Your task to perform on an android device: open app "Cash App" Image 0: 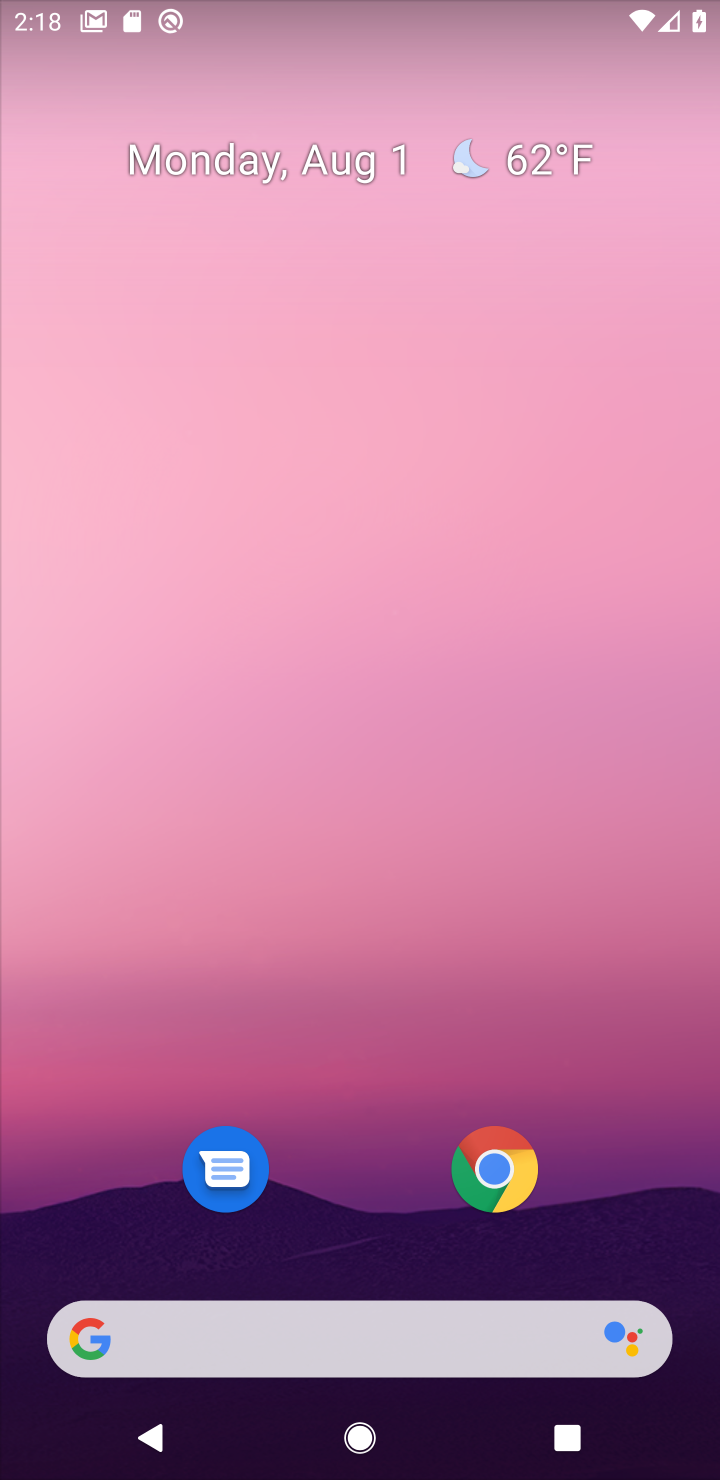
Step 0: click (371, 46)
Your task to perform on an android device: open app "Cash App" Image 1: 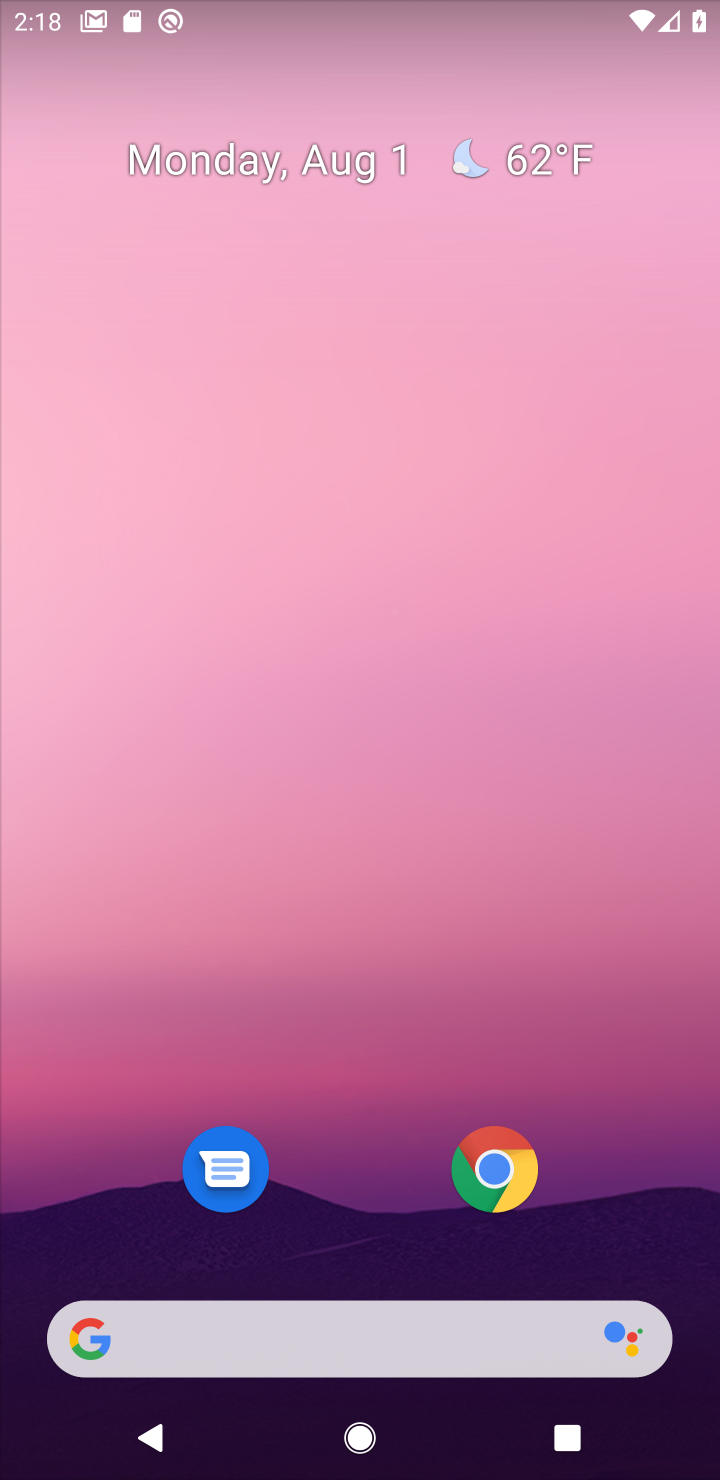
Step 1: drag from (346, 1098) to (424, 154)
Your task to perform on an android device: open app "Cash App" Image 2: 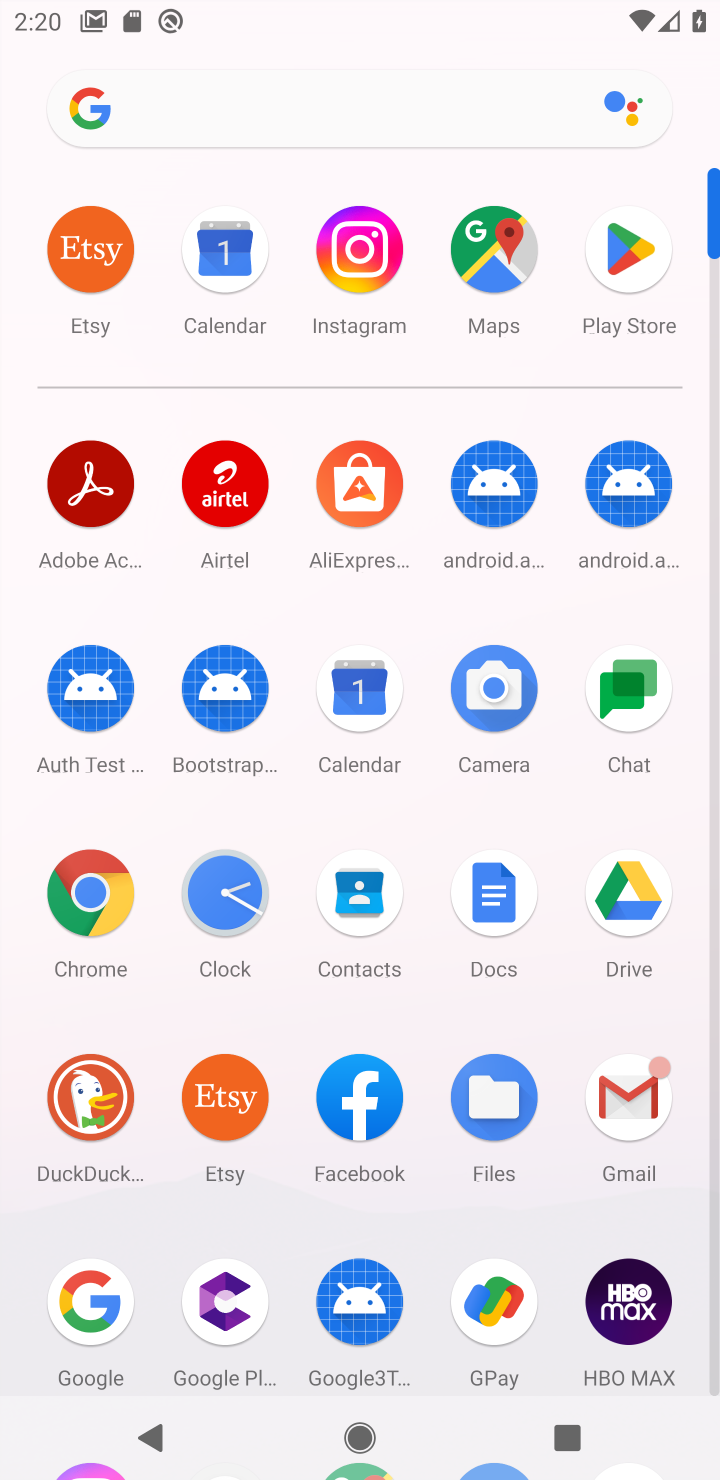
Step 2: click (629, 276)
Your task to perform on an android device: open app "Cash App" Image 3: 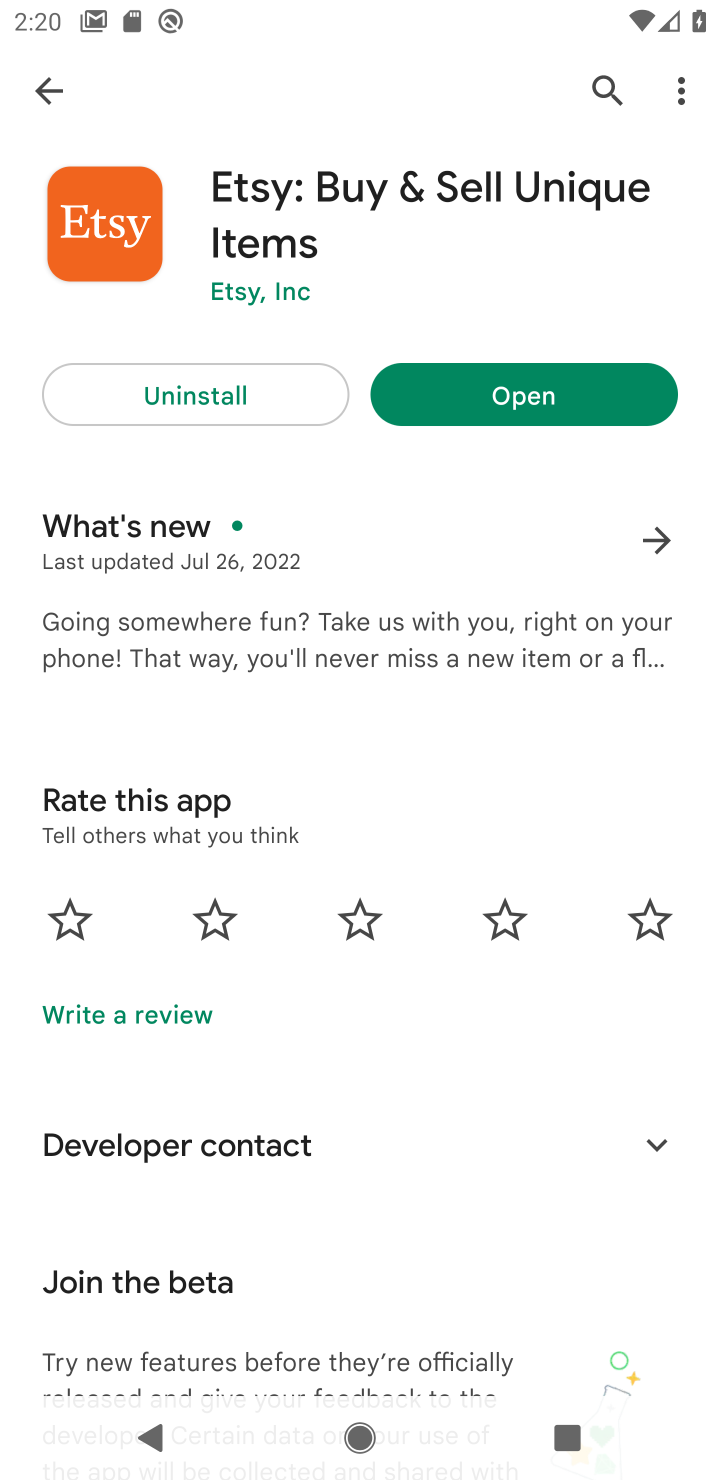
Step 3: click (49, 88)
Your task to perform on an android device: open app "Cash App" Image 4: 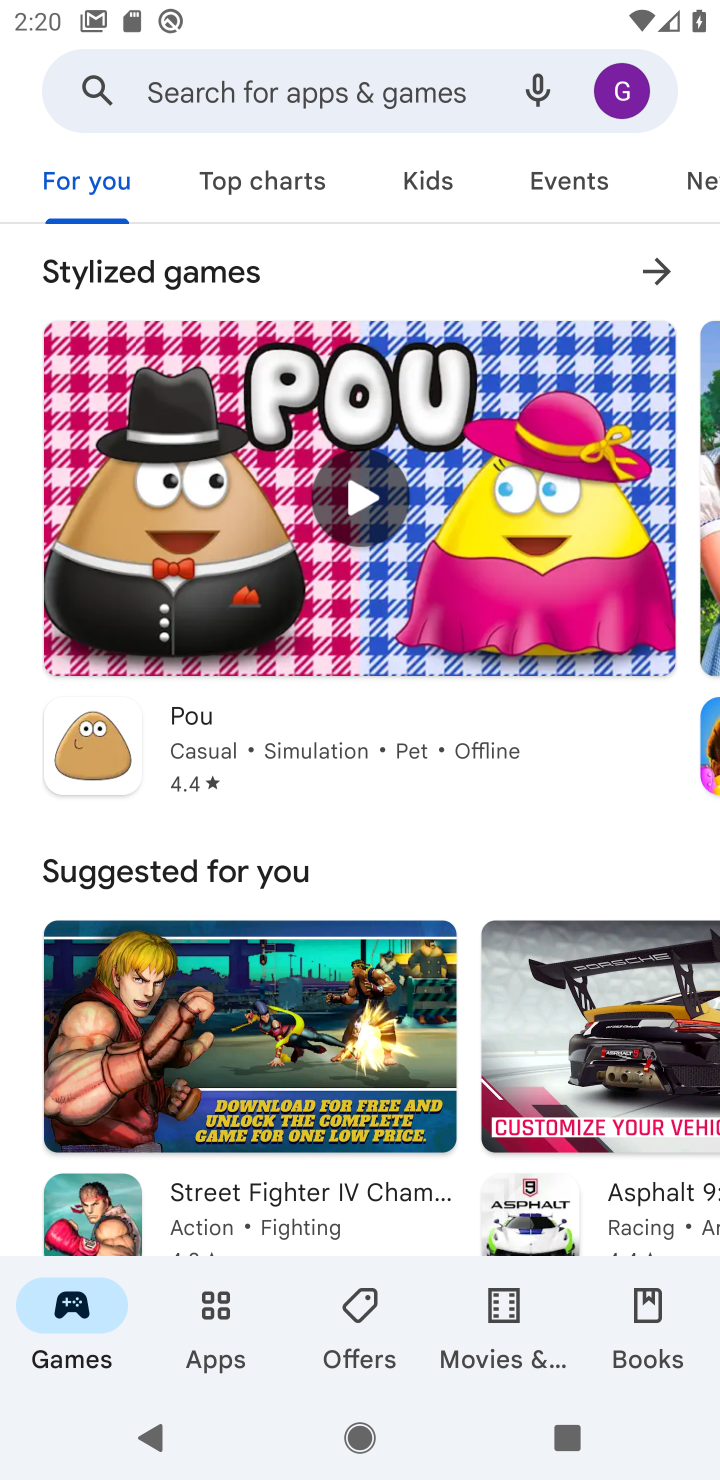
Step 4: click (320, 93)
Your task to perform on an android device: open app "Cash App" Image 5: 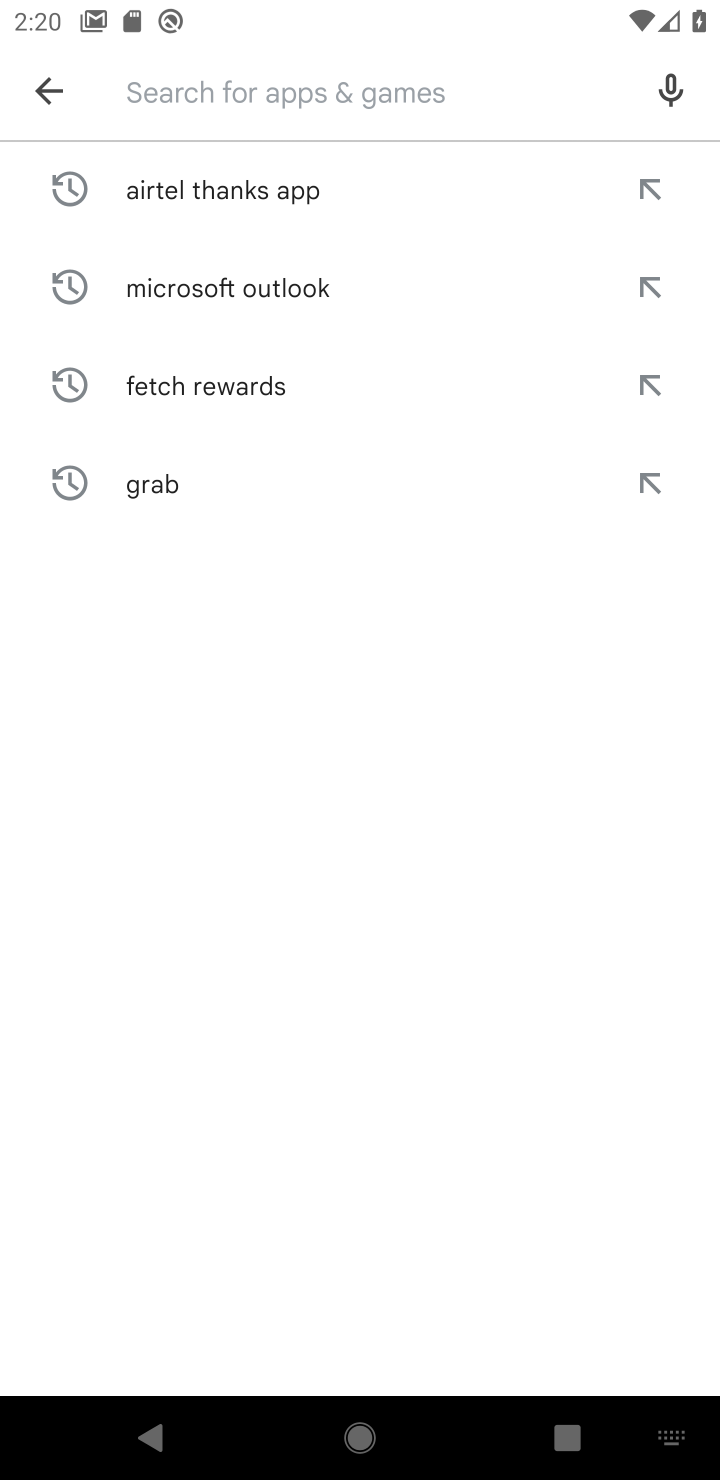
Step 5: type "Cash App"
Your task to perform on an android device: open app "Cash App" Image 6: 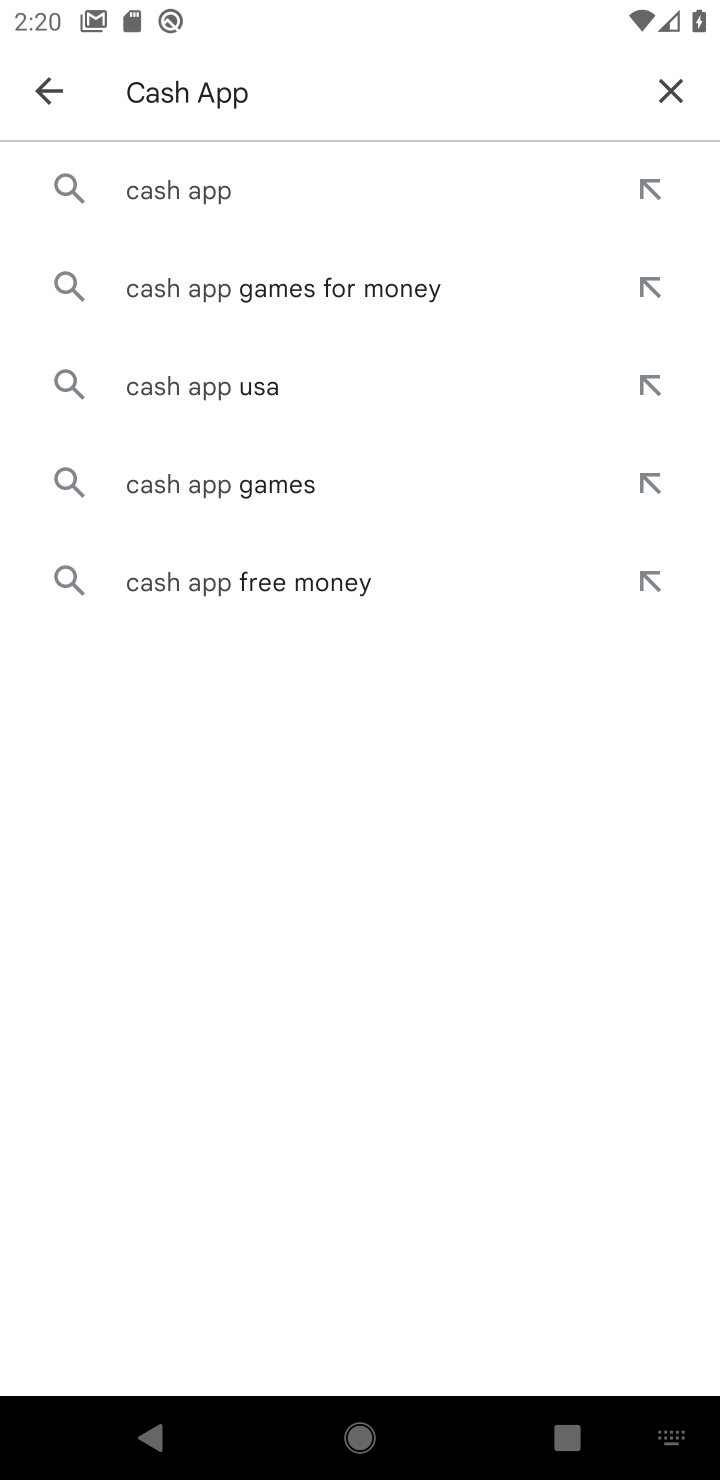
Step 6: click (186, 188)
Your task to perform on an android device: open app "Cash App" Image 7: 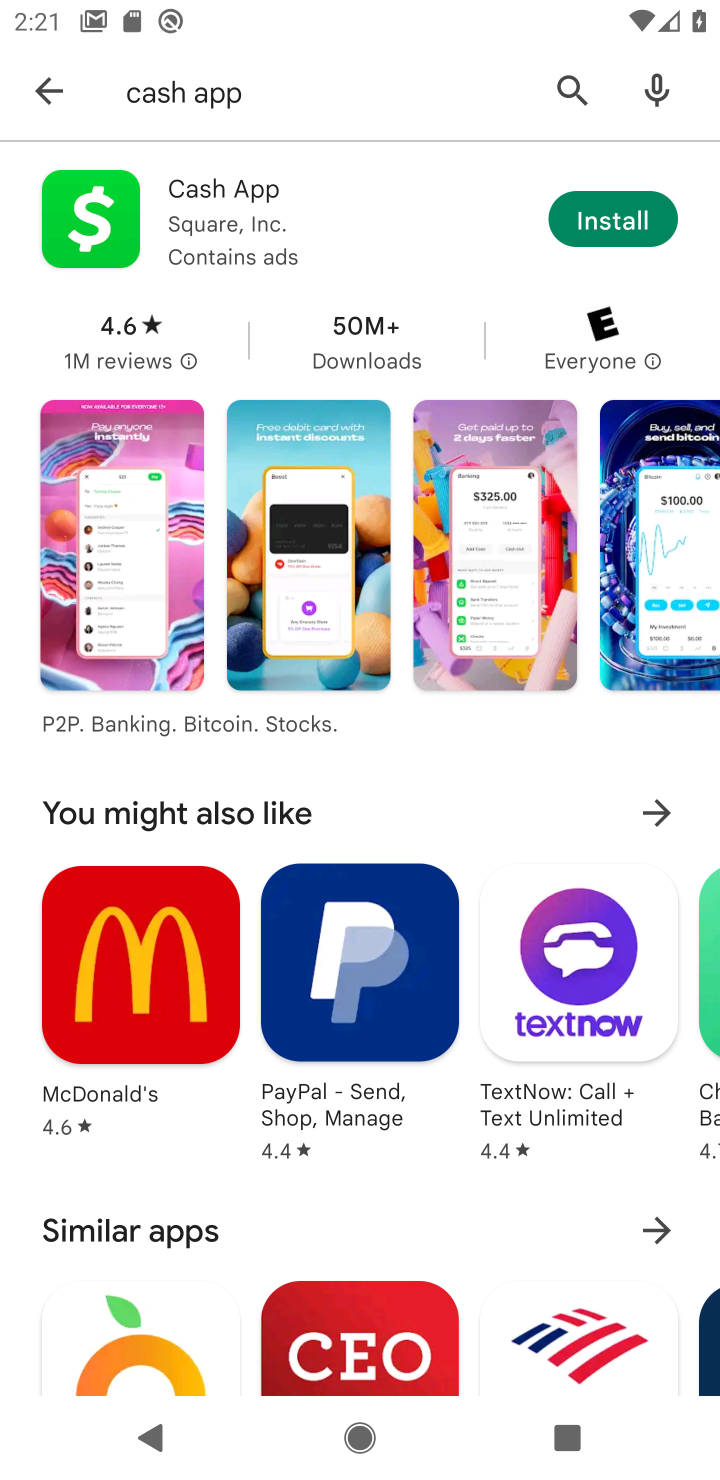
Step 7: click (638, 221)
Your task to perform on an android device: open app "Cash App" Image 8: 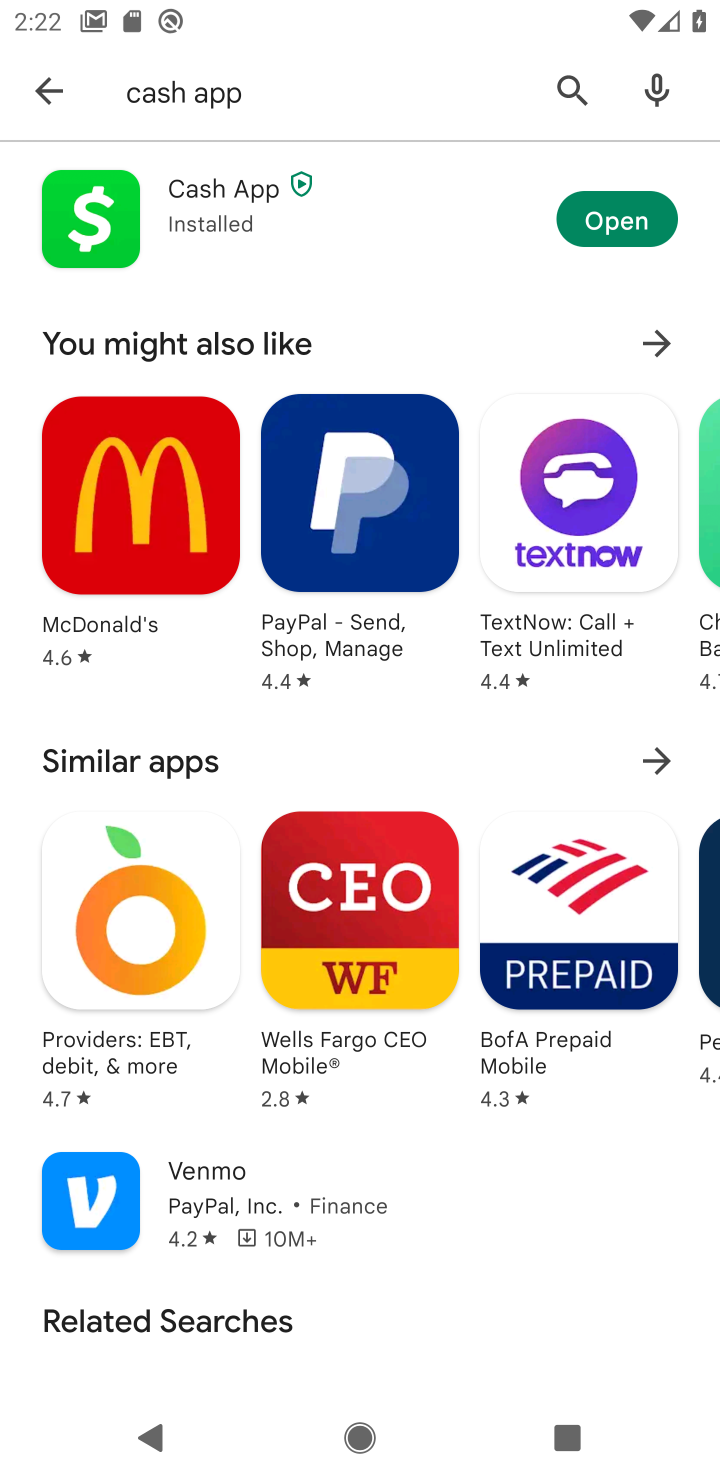
Step 8: click (573, 224)
Your task to perform on an android device: open app "Cash App" Image 9: 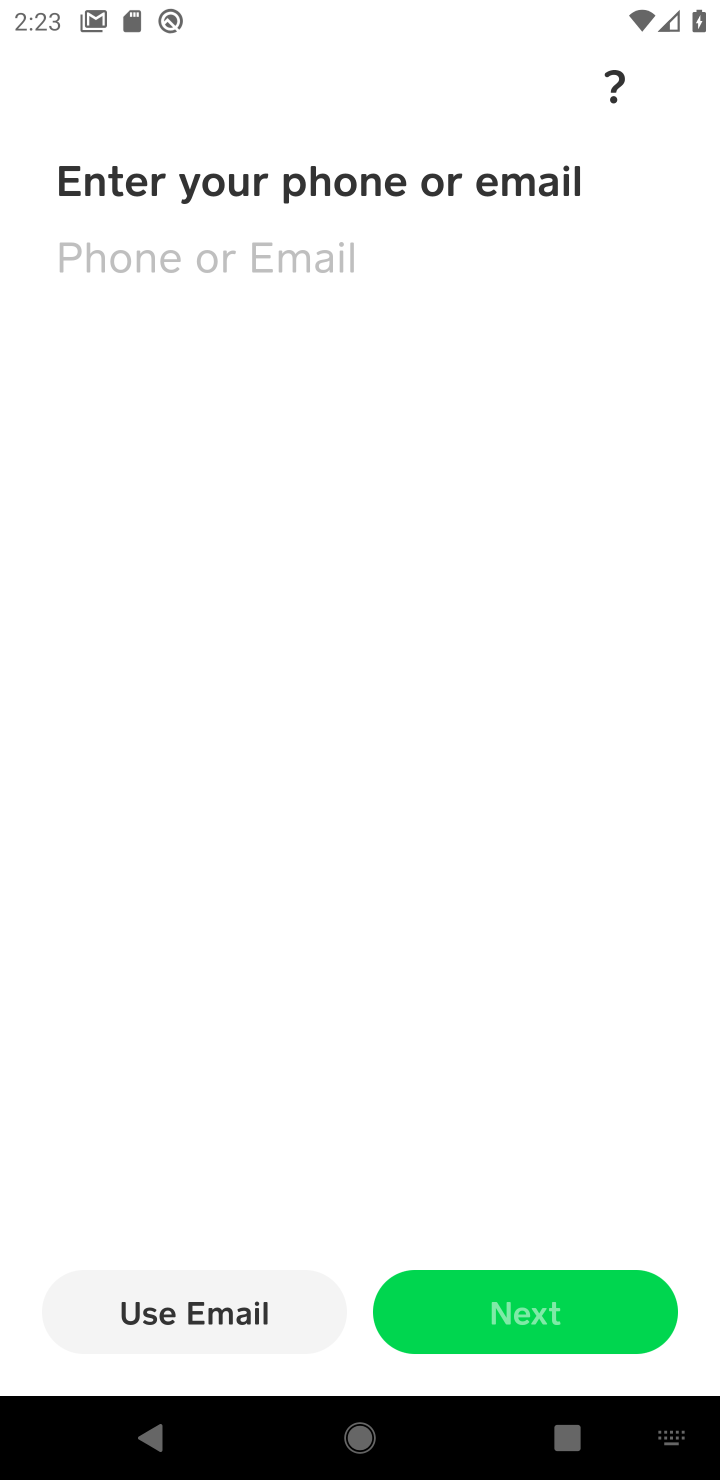
Step 9: task complete